Your task to perform on an android device: Search for Mexican restaurants on Maps Image 0: 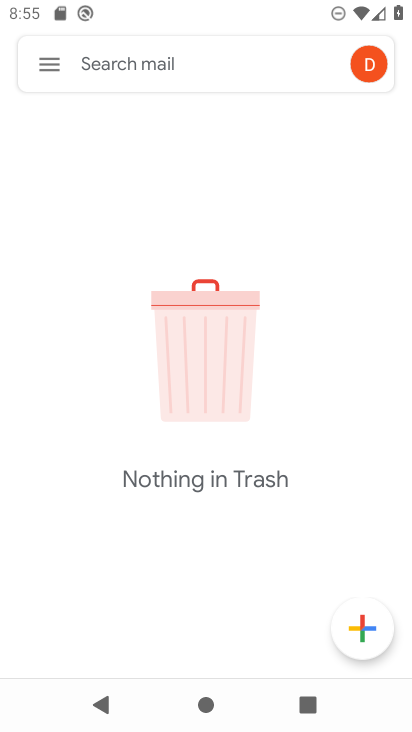
Step 0: press home button
Your task to perform on an android device: Search for Mexican restaurants on Maps Image 1: 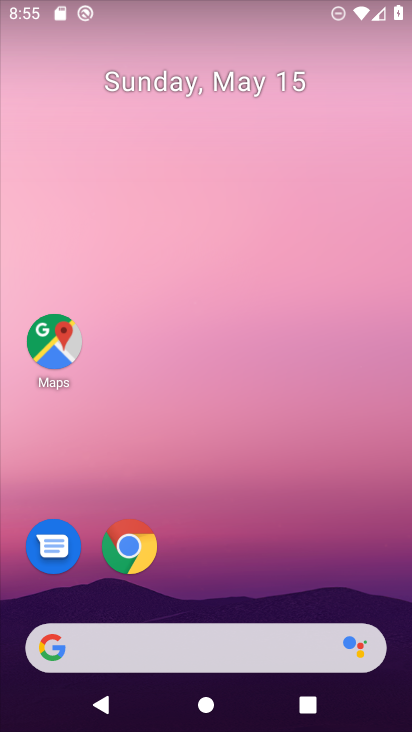
Step 1: click (42, 338)
Your task to perform on an android device: Search for Mexican restaurants on Maps Image 2: 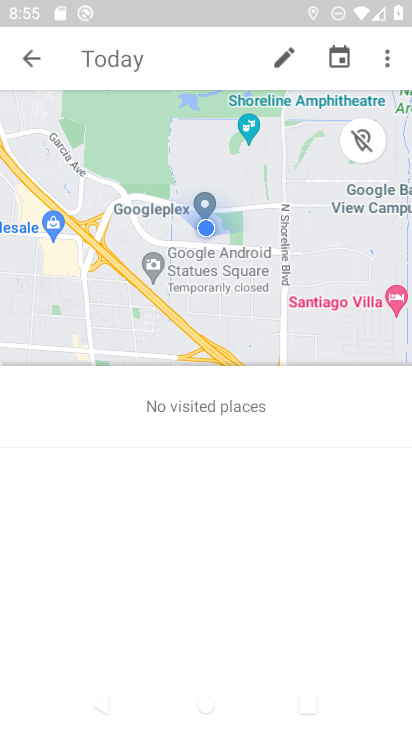
Step 2: click (30, 43)
Your task to perform on an android device: Search for Mexican restaurants on Maps Image 3: 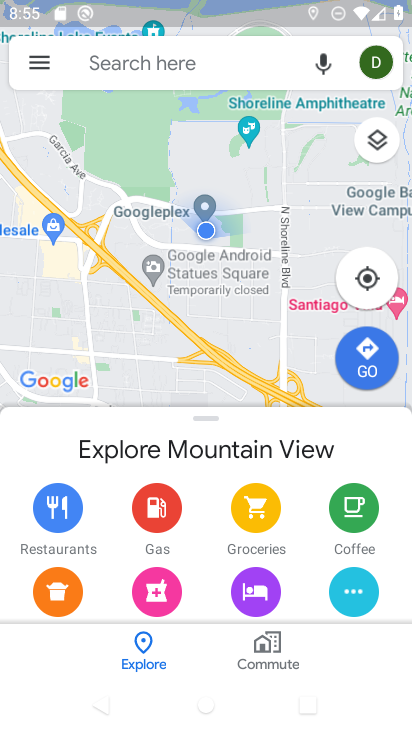
Step 3: click (216, 59)
Your task to perform on an android device: Search for Mexican restaurants on Maps Image 4: 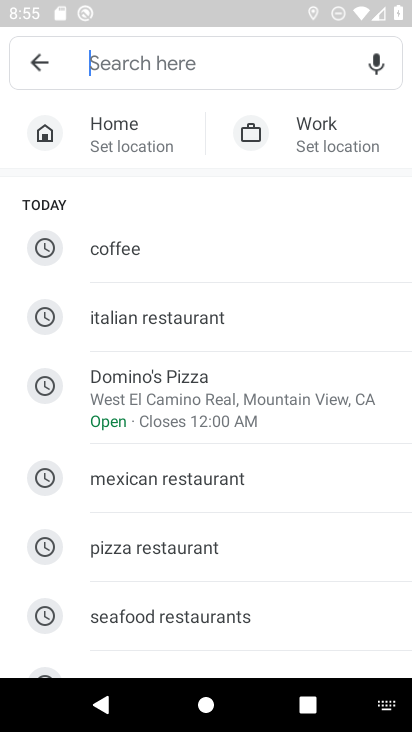
Step 4: click (196, 466)
Your task to perform on an android device: Search for Mexican restaurants on Maps Image 5: 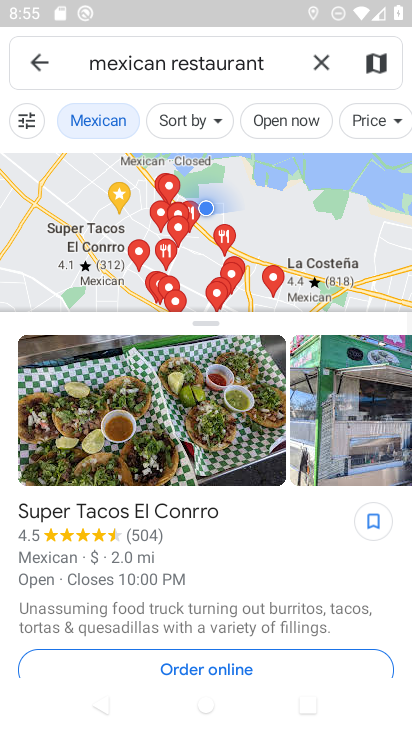
Step 5: task complete